Your task to perform on an android device: Go to Reddit.com Image 0: 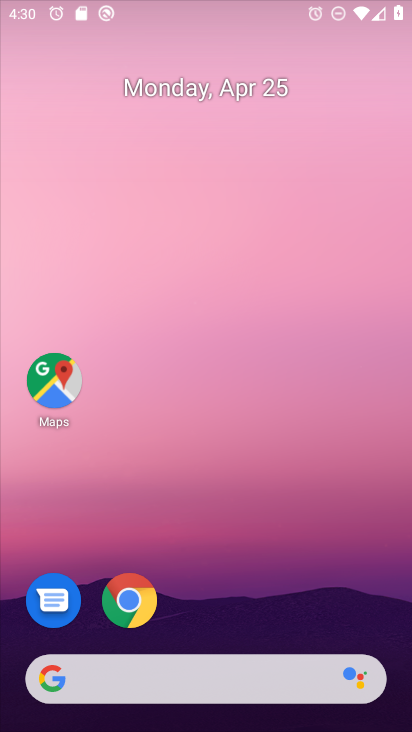
Step 0: drag from (221, 541) to (203, 33)
Your task to perform on an android device: Go to Reddit.com Image 1: 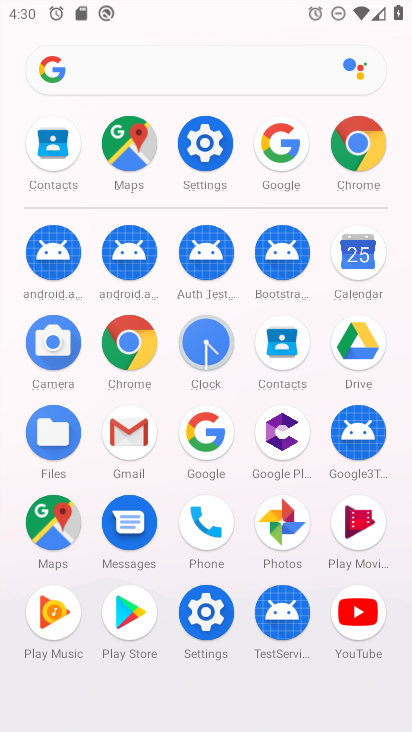
Step 1: click (359, 140)
Your task to perform on an android device: Go to Reddit.com Image 2: 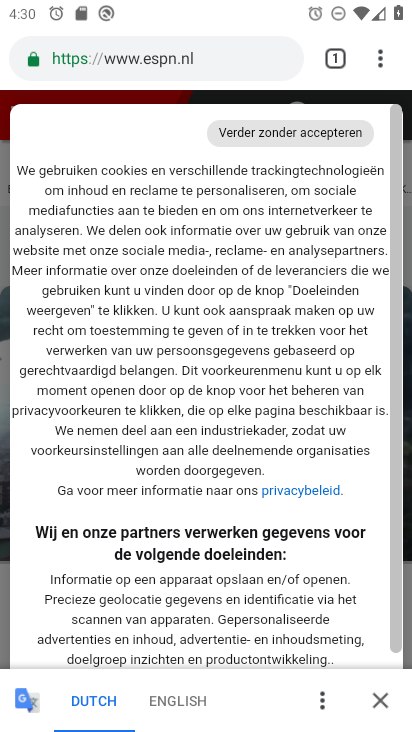
Step 2: click (176, 54)
Your task to perform on an android device: Go to Reddit.com Image 3: 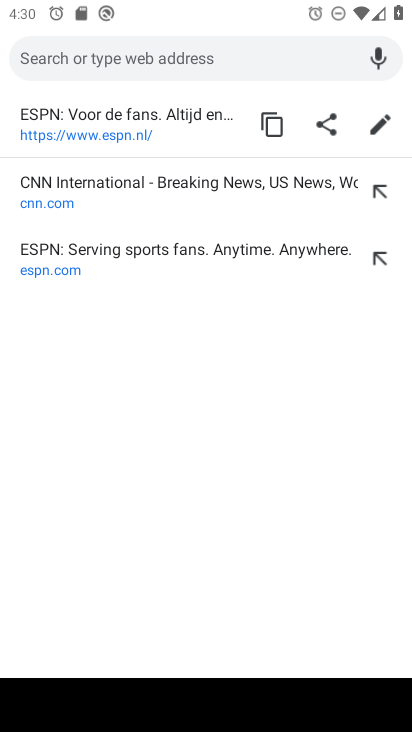
Step 3: type "Reddit.com"
Your task to perform on an android device: Go to Reddit.com Image 4: 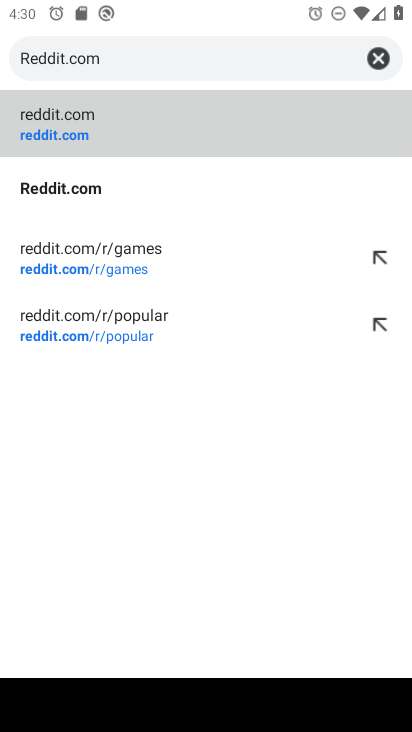
Step 4: click (156, 120)
Your task to perform on an android device: Go to Reddit.com Image 5: 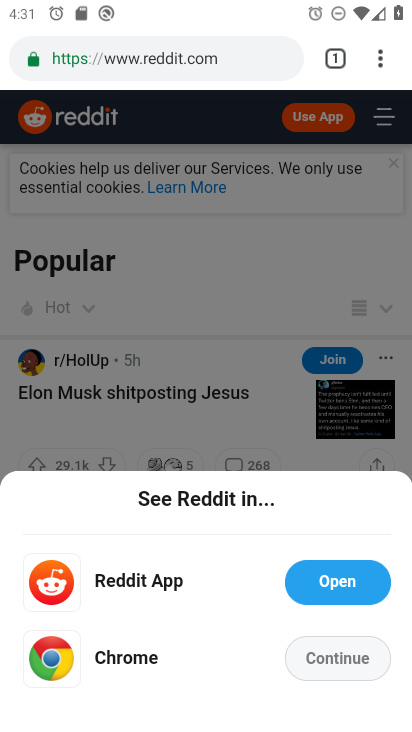
Step 5: task complete